Your task to perform on an android device: Search for seafood restaurants on Google Maps Image 0: 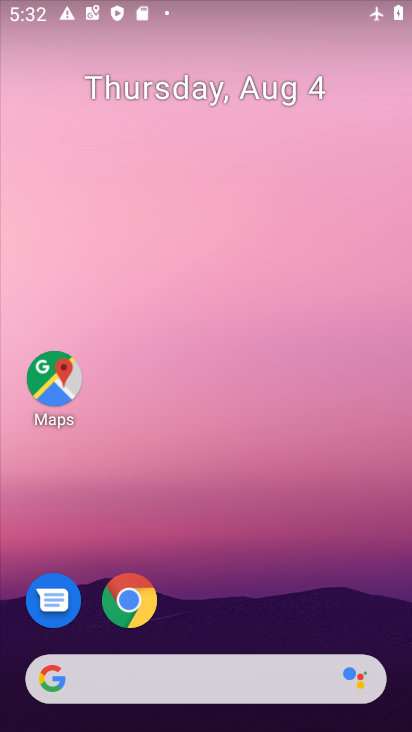
Step 0: click (43, 381)
Your task to perform on an android device: Search for seafood restaurants on Google Maps Image 1: 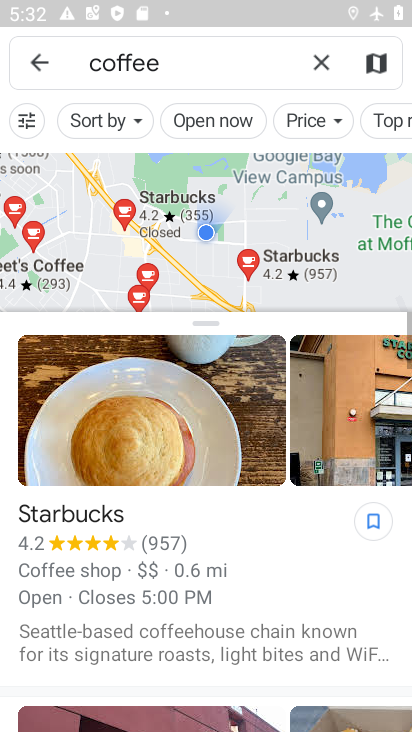
Step 1: click (314, 65)
Your task to perform on an android device: Search for seafood restaurants on Google Maps Image 2: 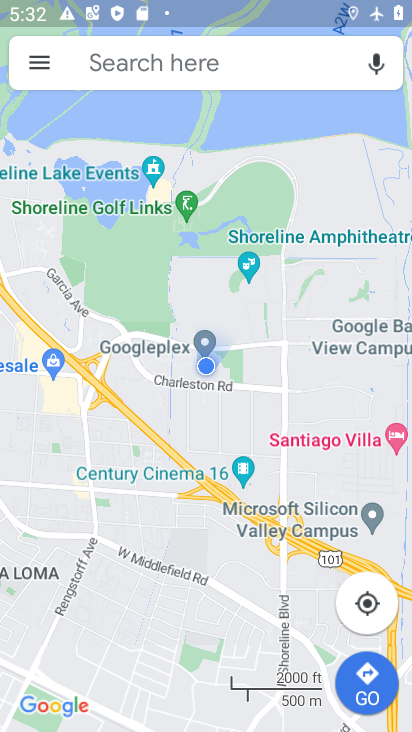
Step 2: click (233, 69)
Your task to perform on an android device: Search for seafood restaurants on Google Maps Image 3: 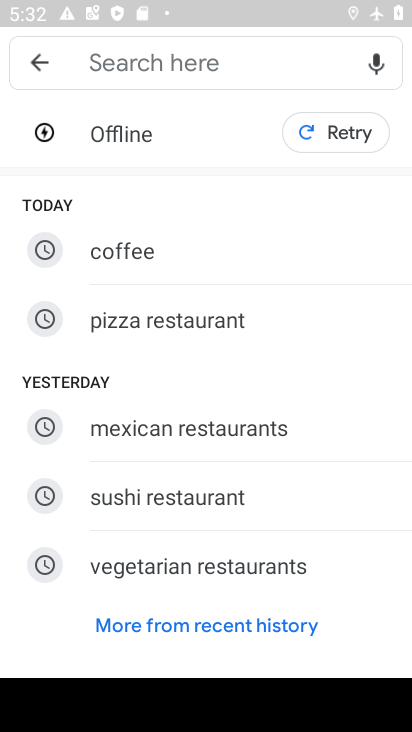
Step 3: type "seafood restaurants"
Your task to perform on an android device: Search for seafood restaurants on Google Maps Image 4: 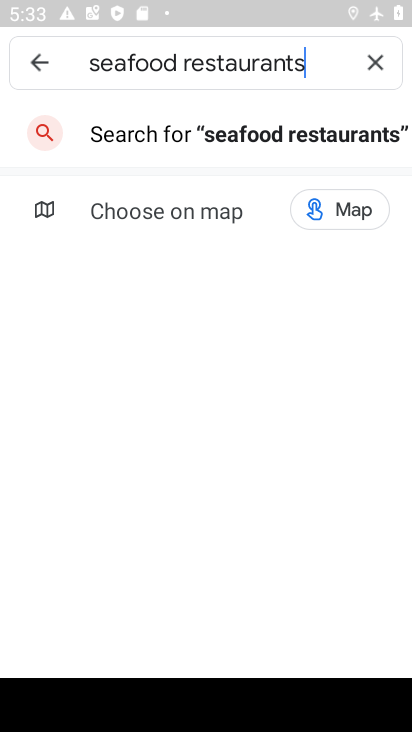
Step 4: drag from (371, 12) to (340, 566)
Your task to perform on an android device: Search for seafood restaurants on Google Maps Image 5: 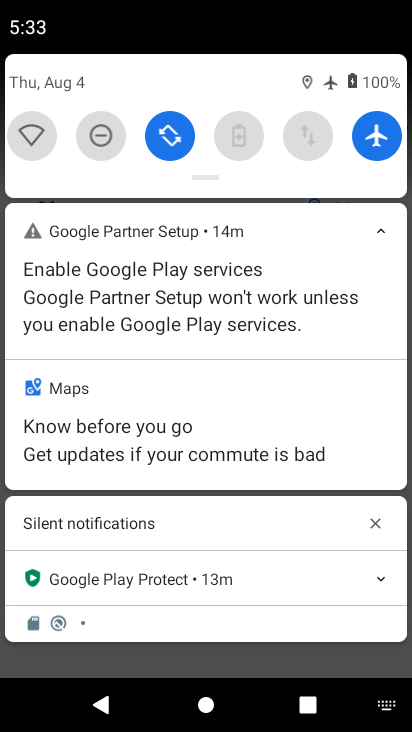
Step 5: click (376, 140)
Your task to perform on an android device: Search for seafood restaurants on Google Maps Image 6: 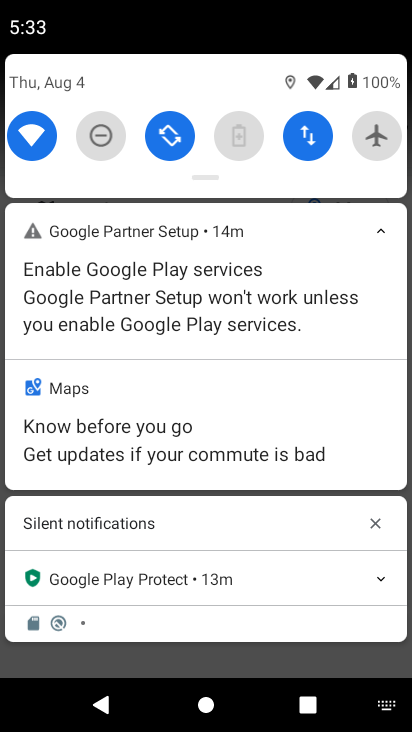
Step 6: drag from (188, 676) to (280, 138)
Your task to perform on an android device: Search for seafood restaurants on Google Maps Image 7: 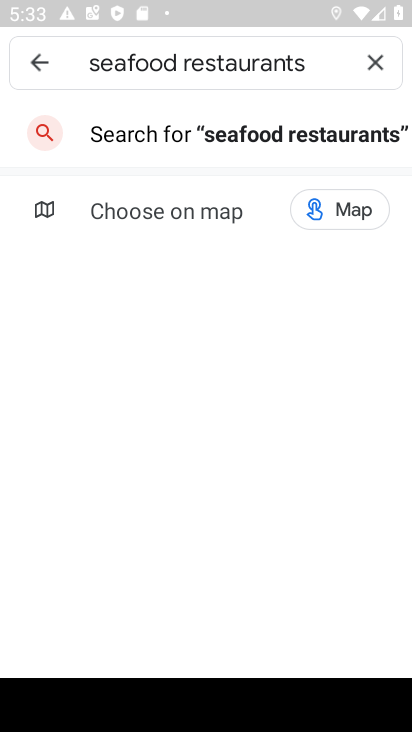
Step 7: click (233, 132)
Your task to perform on an android device: Search for seafood restaurants on Google Maps Image 8: 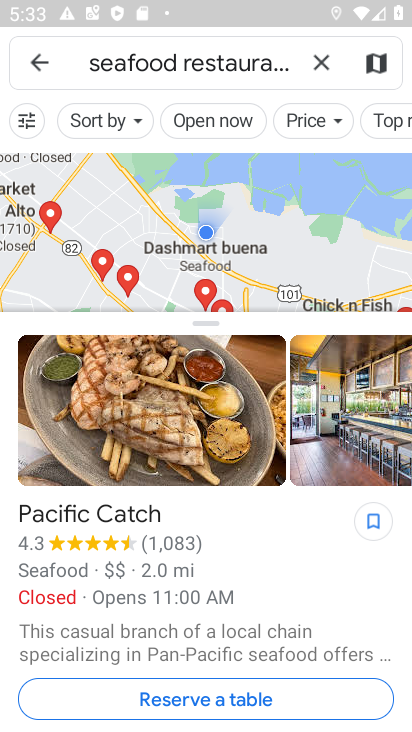
Step 8: task complete